Your task to perform on an android device: turn off picture-in-picture Image 0: 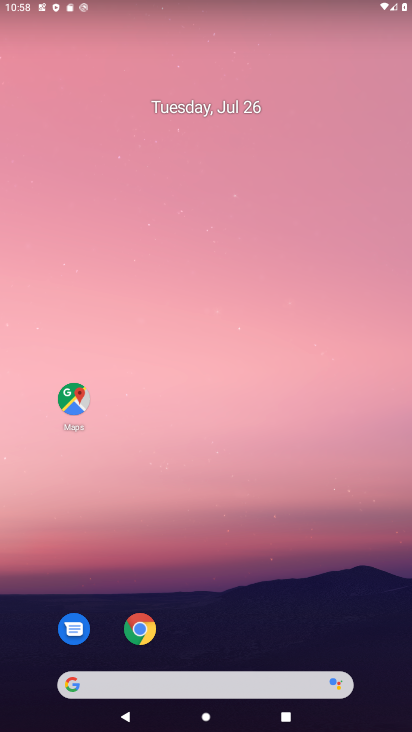
Step 0: drag from (189, 287) to (189, 22)
Your task to perform on an android device: turn off picture-in-picture Image 1: 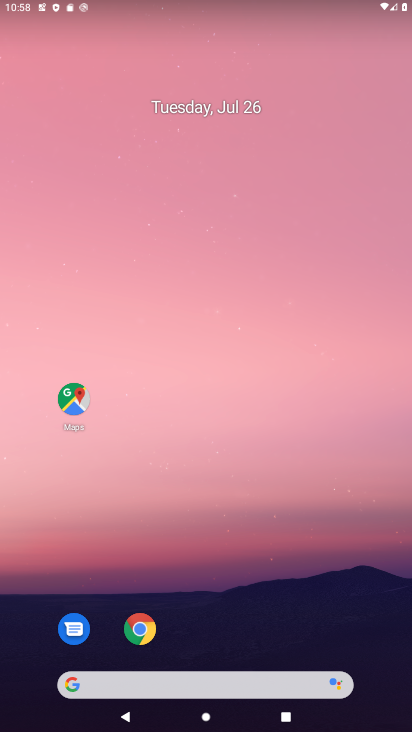
Step 1: drag from (170, 454) to (221, 18)
Your task to perform on an android device: turn off picture-in-picture Image 2: 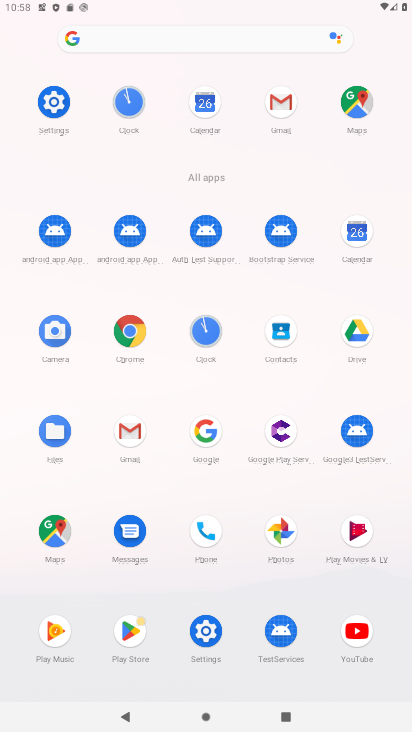
Step 2: click (56, 114)
Your task to perform on an android device: turn off picture-in-picture Image 3: 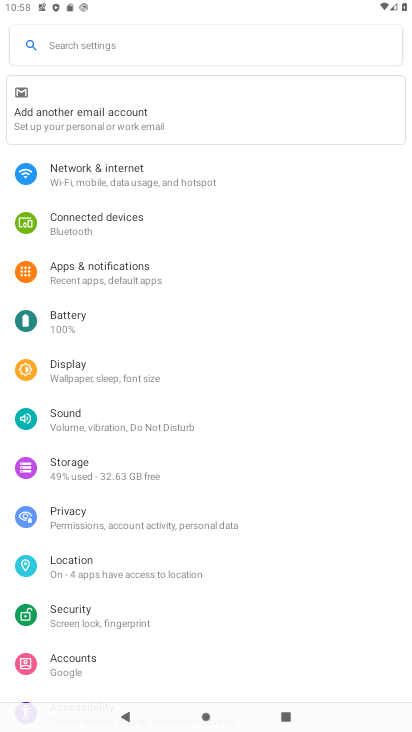
Step 3: click (105, 269)
Your task to perform on an android device: turn off picture-in-picture Image 4: 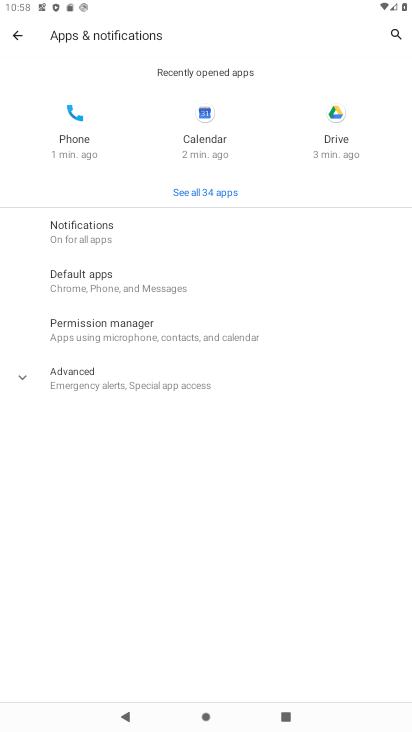
Step 4: click (87, 388)
Your task to perform on an android device: turn off picture-in-picture Image 5: 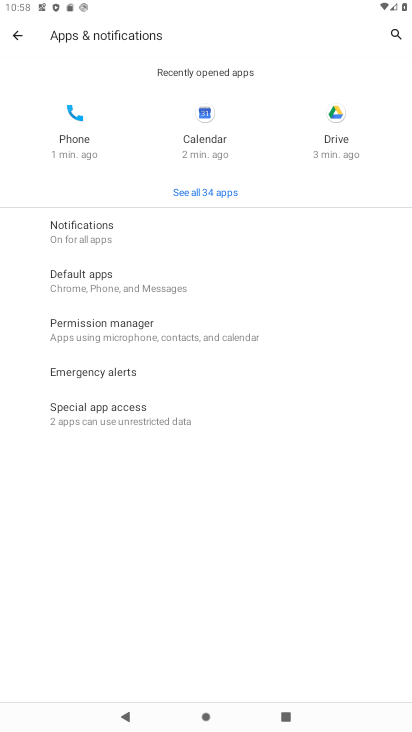
Step 5: click (93, 412)
Your task to perform on an android device: turn off picture-in-picture Image 6: 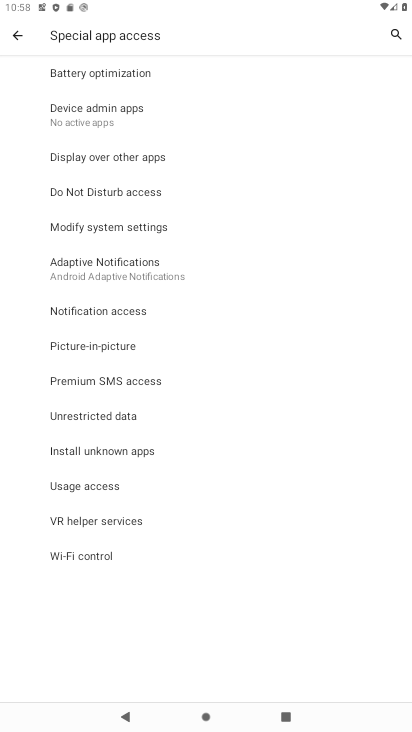
Step 6: click (97, 352)
Your task to perform on an android device: turn off picture-in-picture Image 7: 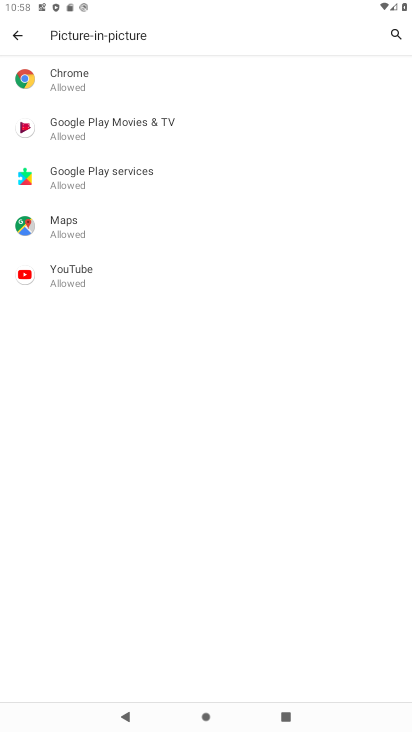
Step 7: click (81, 68)
Your task to perform on an android device: turn off picture-in-picture Image 8: 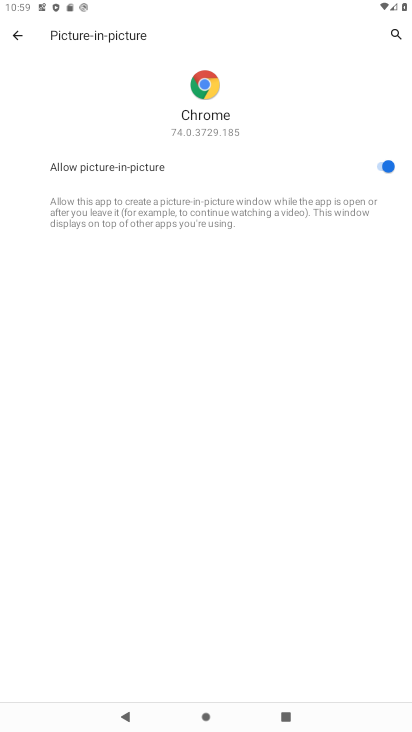
Step 8: click (373, 168)
Your task to perform on an android device: turn off picture-in-picture Image 9: 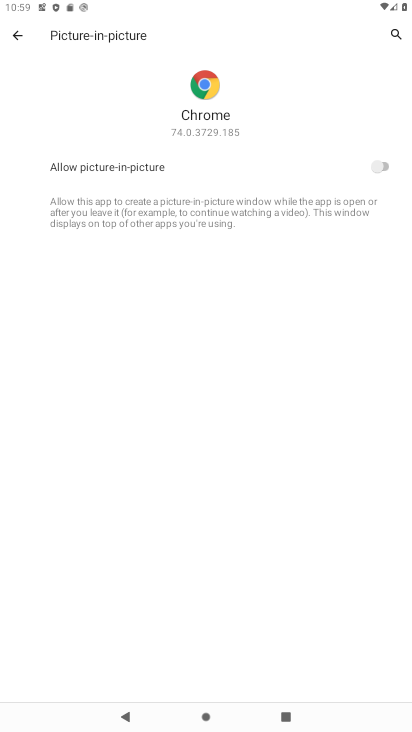
Step 9: task complete